Your task to perform on an android device: check android version Image 0: 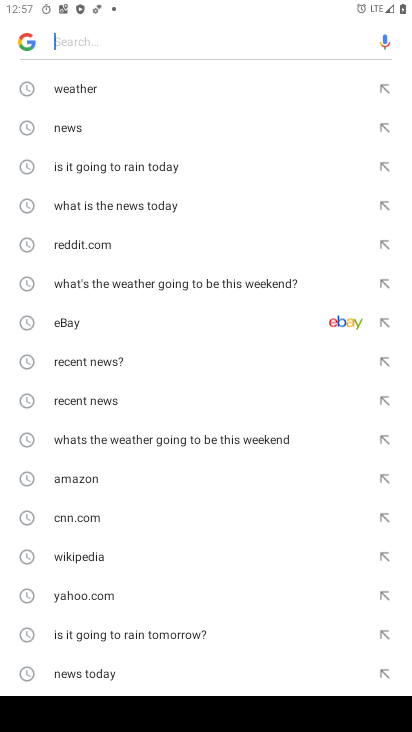
Step 0: press home button
Your task to perform on an android device: check android version Image 1: 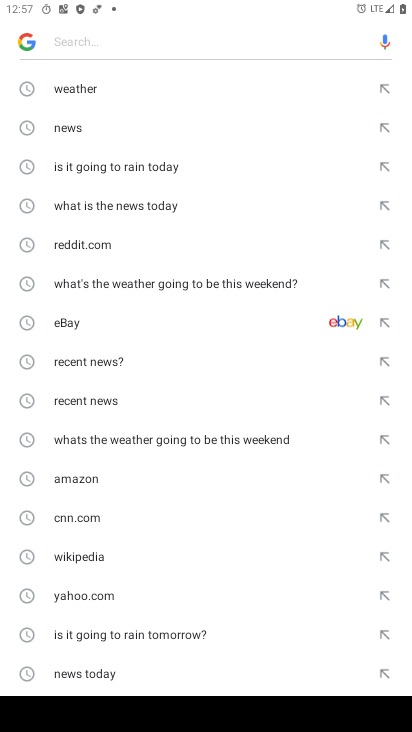
Step 1: press home button
Your task to perform on an android device: check android version Image 2: 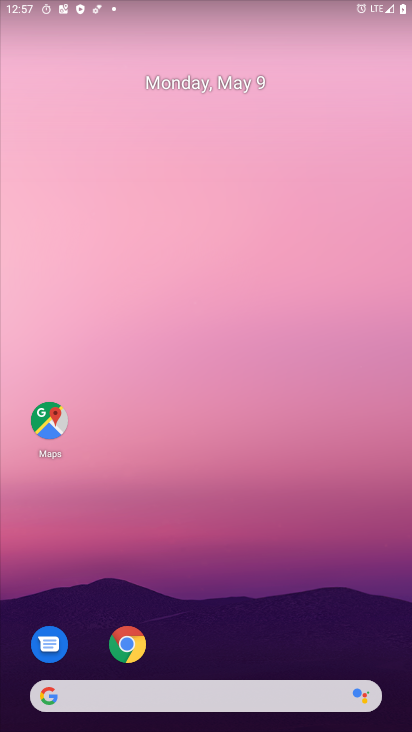
Step 2: drag from (328, 416) to (328, 280)
Your task to perform on an android device: check android version Image 3: 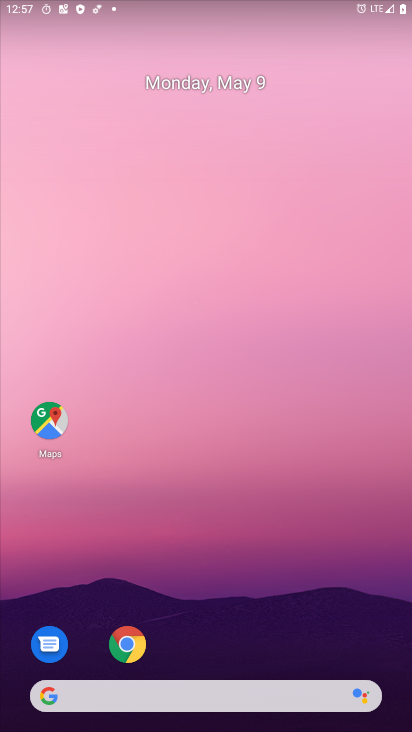
Step 3: drag from (296, 572) to (249, 240)
Your task to perform on an android device: check android version Image 4: 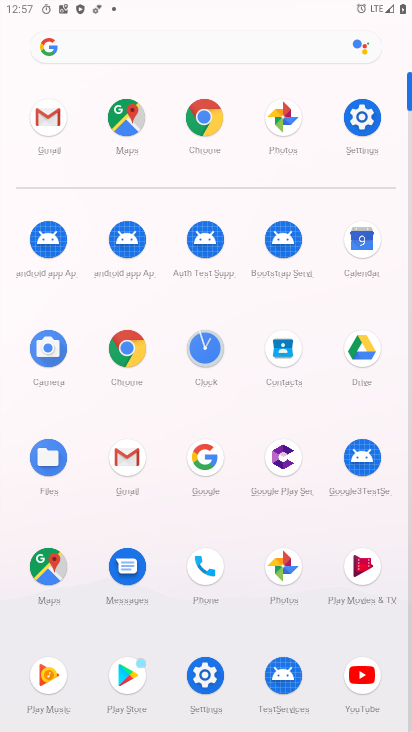
Step 4: click (360, 120)
Your task to perform on an android device: check android version Image 5: 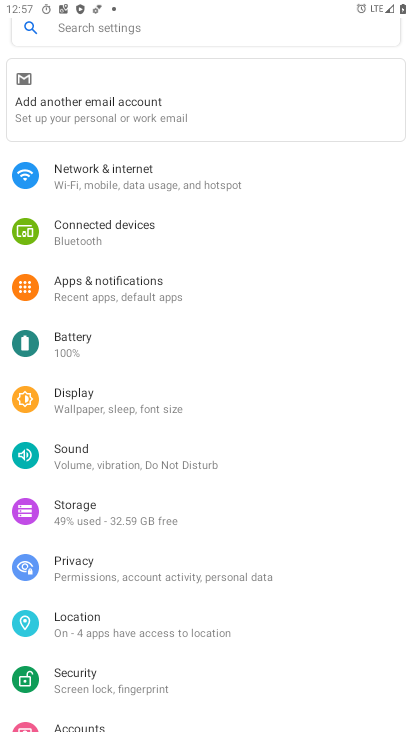
Step 5: drag from (151, 661) to (152, 219)
Your task to perform on an android device: check android version Image 6: 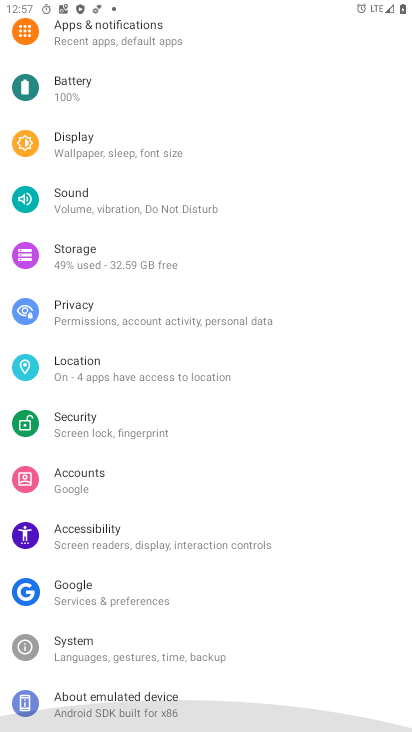
Step 6: drag from (153, 436) to (147, 166)
Your task to perform on an android device: check android version Image 7: 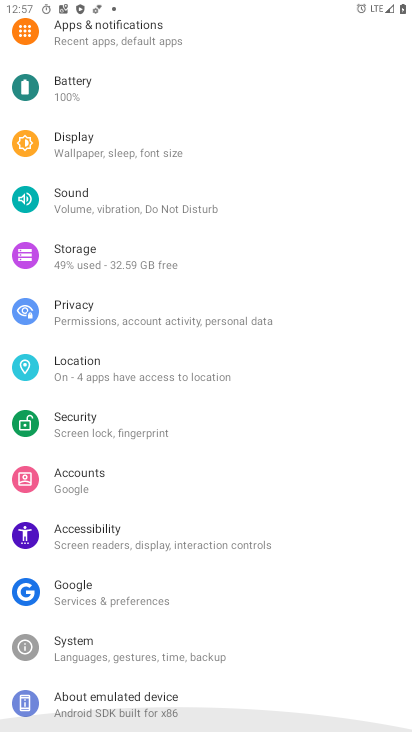
Step 7: drag from (198, 448) to (238, 178)
Your task to perform on an android device: check android version Image 8: 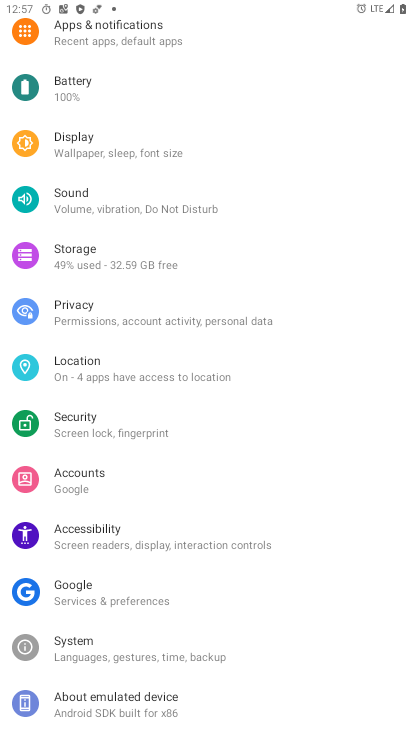
Step 8: click (111, 710)
Your task to perform on an android device: check android version Image 9: 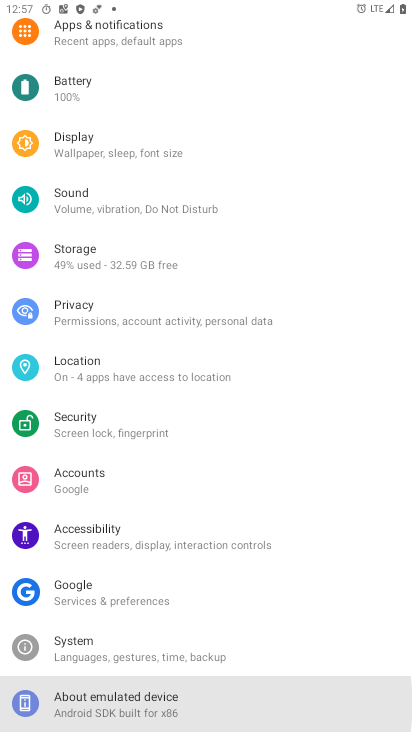
Step 9: click (111, 710)
Your task to perform on an android device: check android version Image 10: 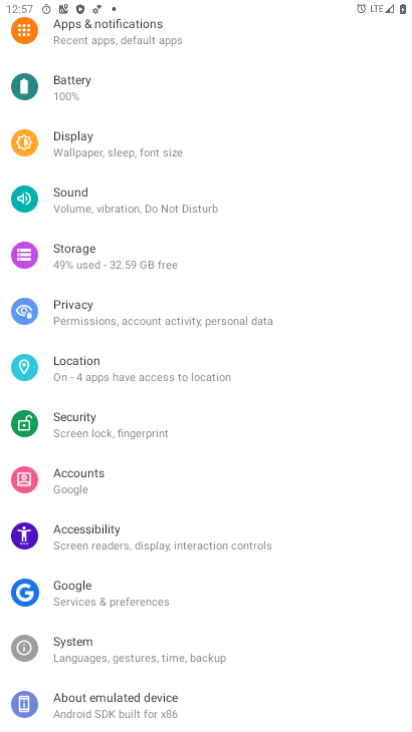
Step 10: click (104, 705)
Your task to perform on an android device: check android version Image 11: 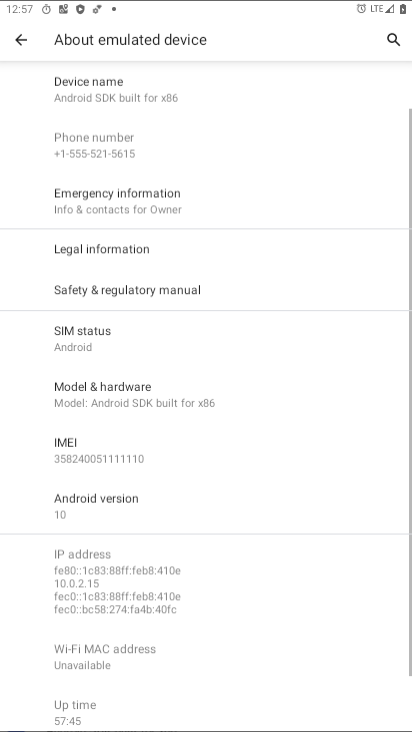
Step 11: click (93, 695)
Your task to perform on an android device: check android version Image 12: 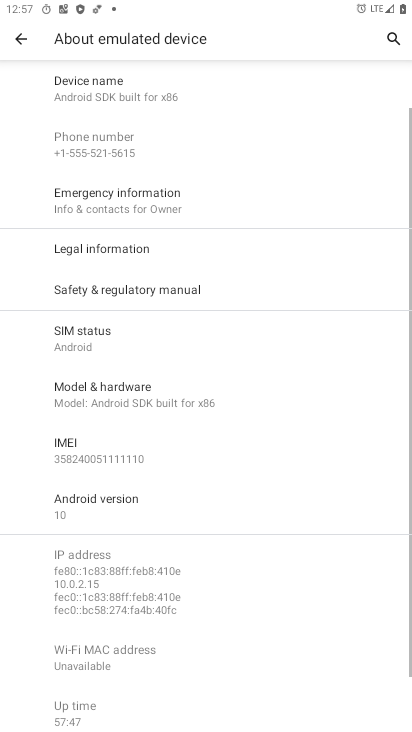
Step 12: task complete